Your task to perform on an android device: clear history in the chrome app Image 0: 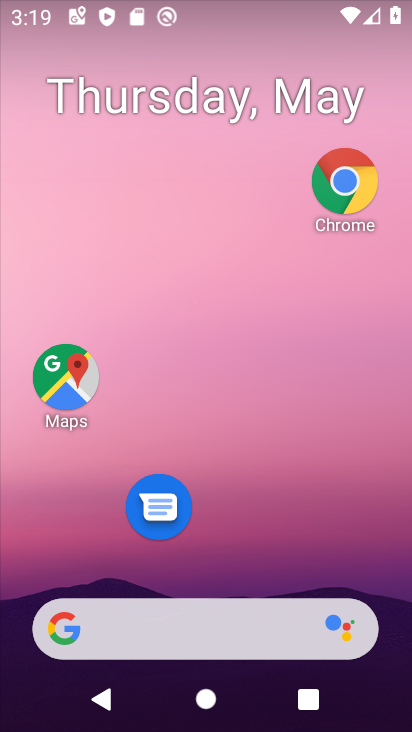
Step 0: drag from (277, 563) to (297, 14)
Your task to perform on an android device: clear history in the chrome app Image 1: 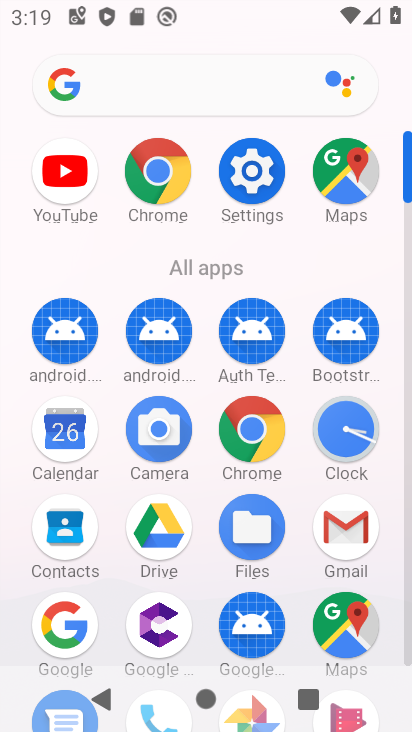
Step 1: click (161, 166)
Your task to perform on an android device: clear history in the chrome app Image 2: 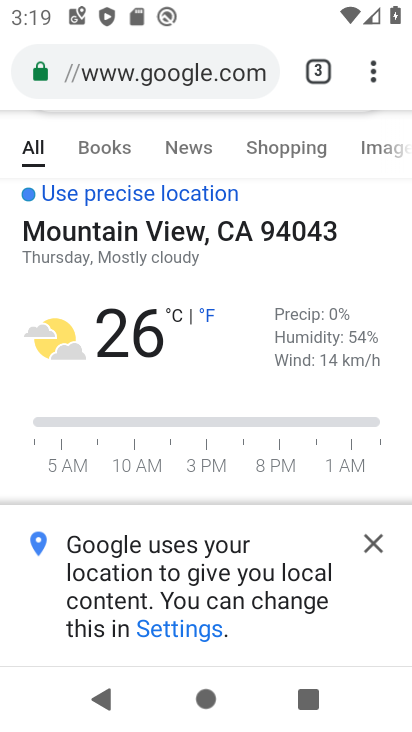
Step 2: drag from (372, 80) to (147, 404)
Your task to perform on an android device: clear history in the chrome app Image 3: 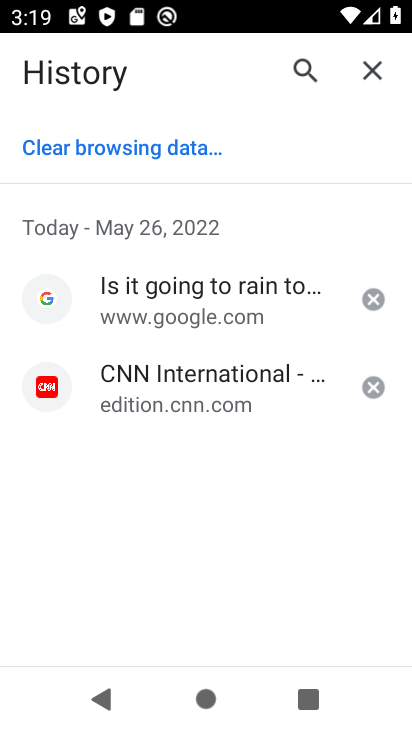
Step 3: click (29, 382)
Your task to perform on an android device: clear history in the chrome app Image 4: 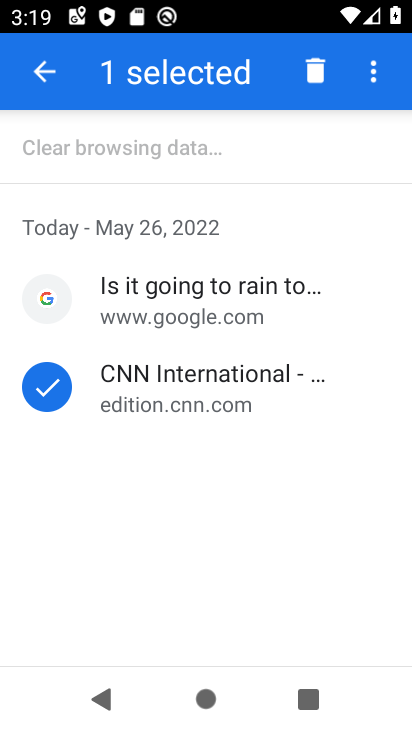
Step 4: click (44, 298)
Your task to perform on an android device: clear history in the chrome app Image 5: 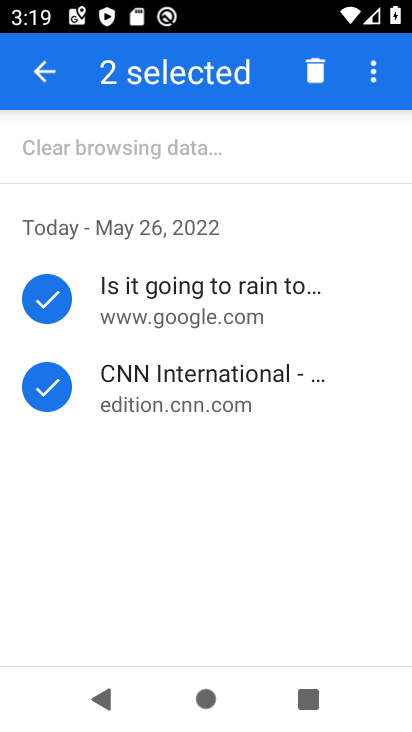
Step 5: click (311, 76)
Your task to perform on an android device: clear history in the chrome app Image 6: 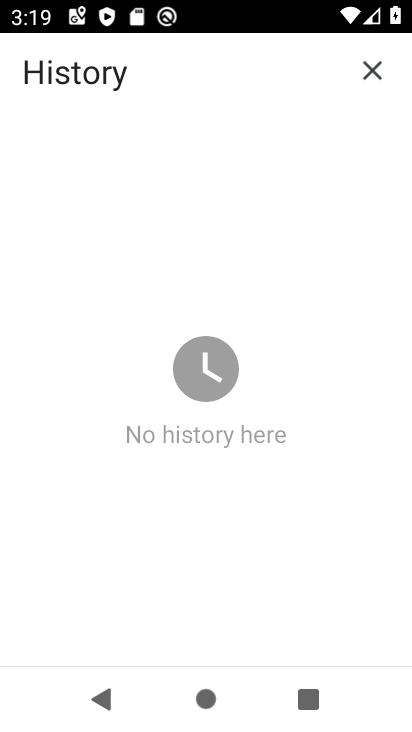
Step 6: task complete